Your task to perform on an android device: toggle wifi Image 0: 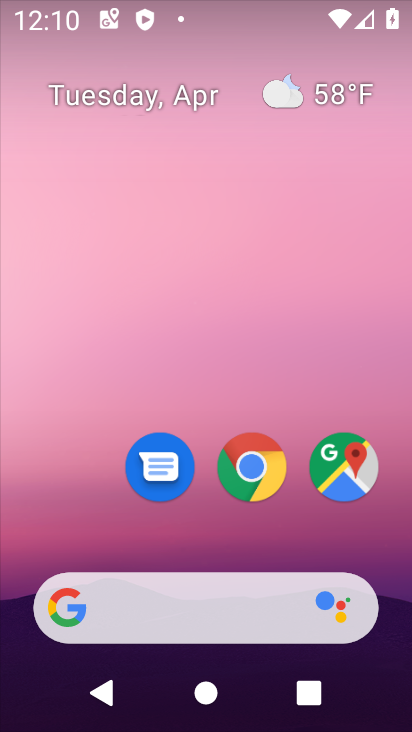
Step 0: drag from (188, 251) to (40, 643)
Your task to perform on an android device: toggle wifi Image 1: 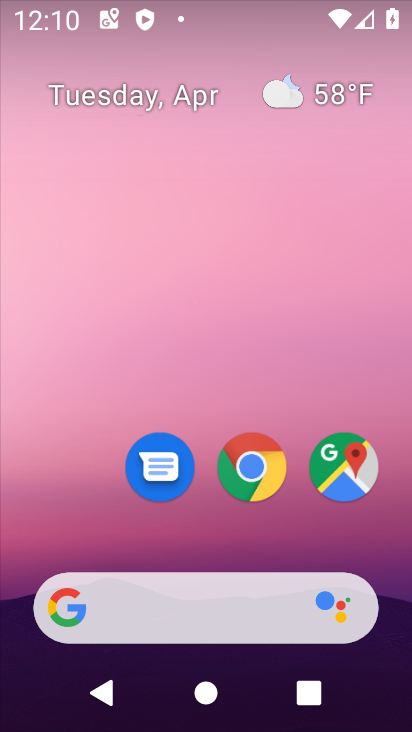
Step 1: drag from (185, 19) to (220, 718)
Your task to perform on an android device: toggle wifi Image 2: 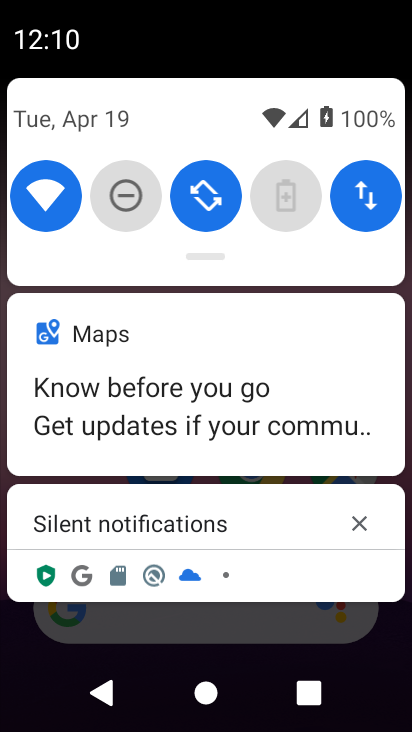
Step 2: click (40, 210)
Your task to perform on an android device: toggle wifi Image 3: 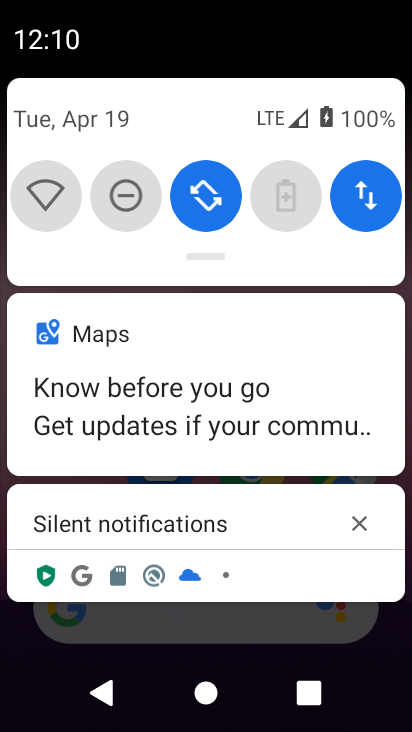
Step 3: click (40, 210)
Your task to perform on an android device: toggle wifi Image 4: 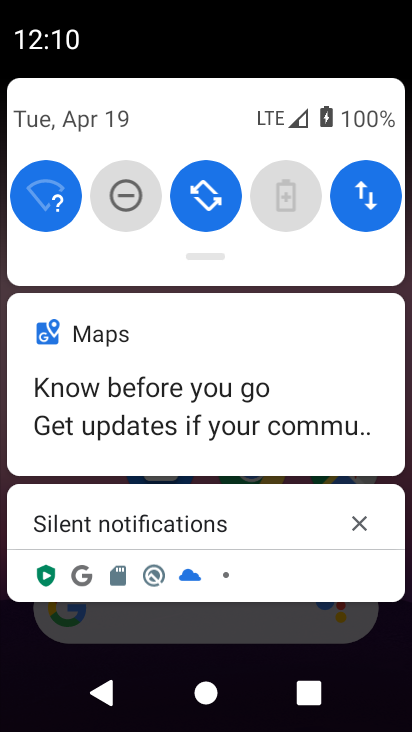
Step 4: task complete